Your task to perform on an android device: Search for sushi restaurants on Maps Image 0: 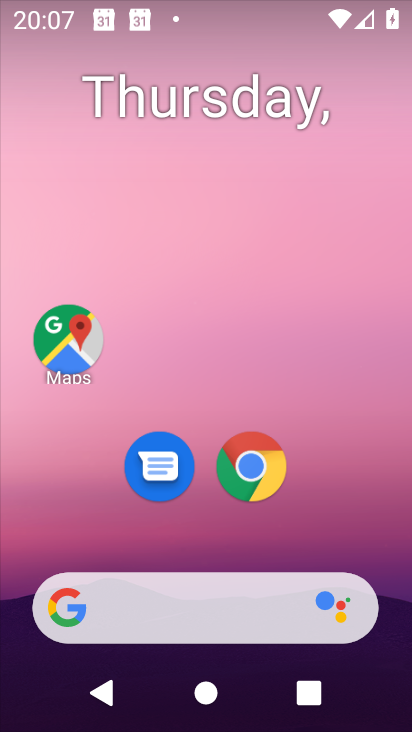
Step 0: click (77, 333)
Your task to perform on an android device: Search for sushi restaurants on Maps Image 1: 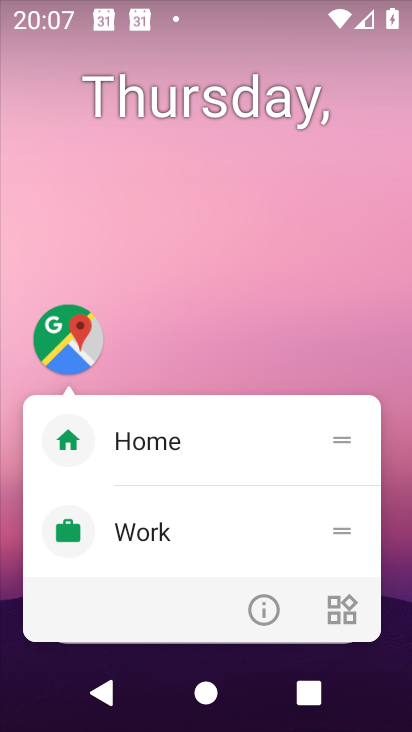
Step 1: click (81, 336)
Your task to perform on an android device: Search for sushi restaurants on Maps Image 2: 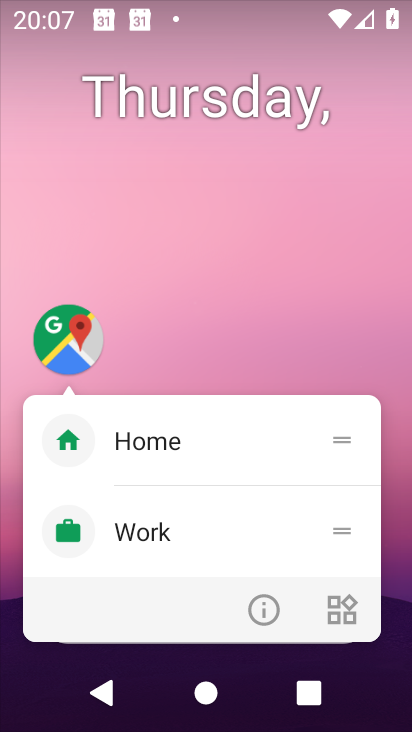
Step 2: click (81, 336)
Your task to perform on an android device: Search for sushi restaurants on Maps Image 3: 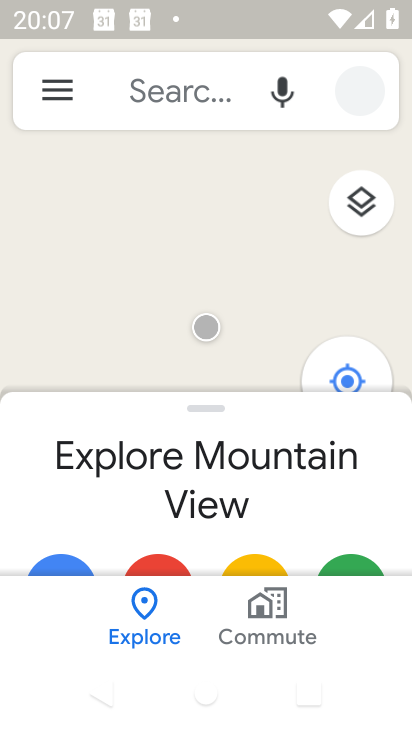
Step 3: click (159, 94)
Your task to perform on an android device: Search for sushi restaurants on Maps Image 4: 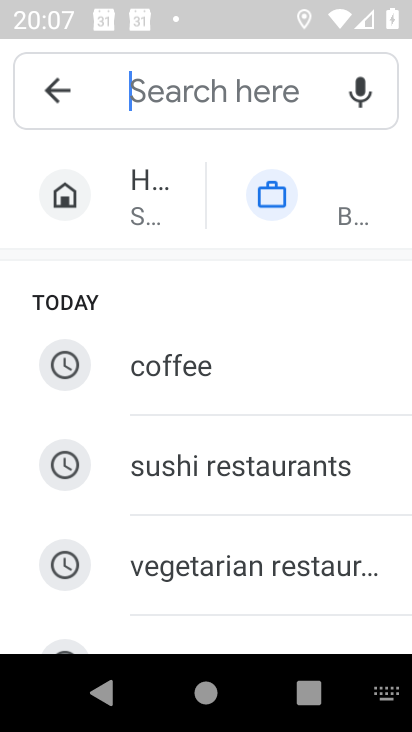
Step 4: click (293, 461)
Your task to perform on an android device: Search for sushi restaurants on Maps Image 5: 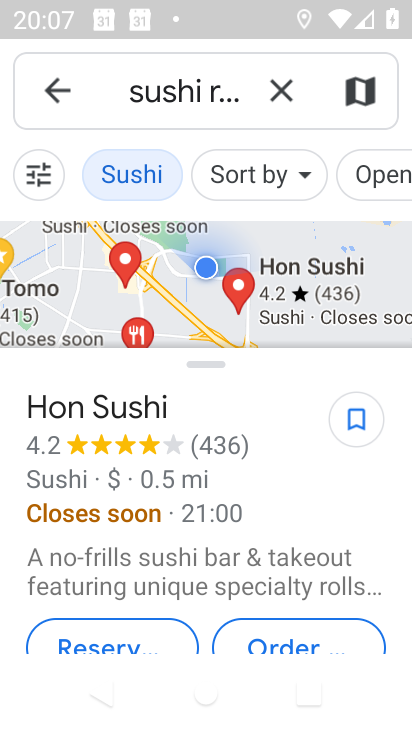
Step 5: task complete